Your task to perform on an android device: change timer sound Image 0: 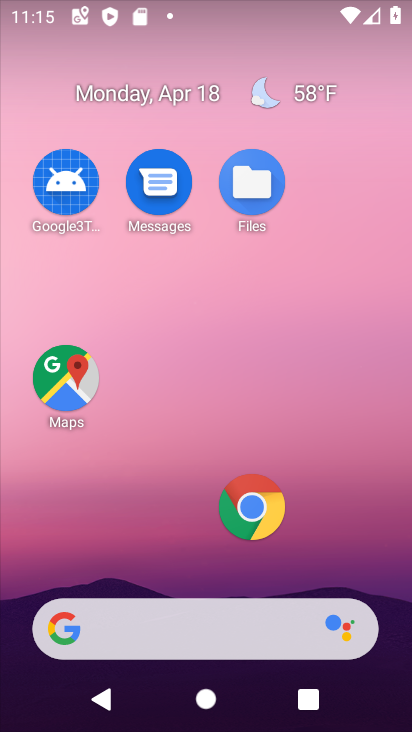
Step 0: drag from (221, 579) to (209, 2)
Your task to perform on an android device: change timer sound Image 1: 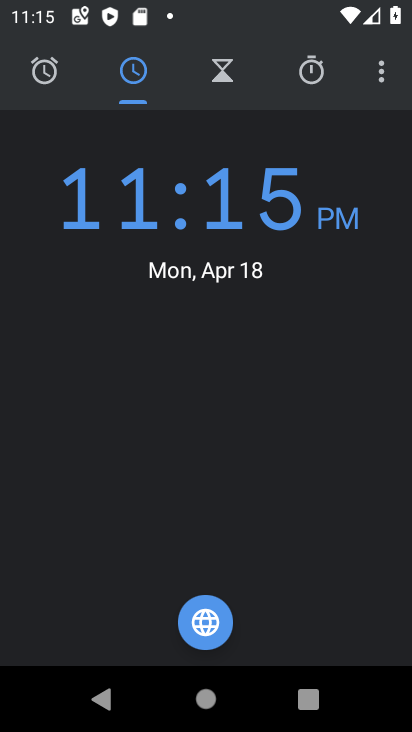
Step 1: press home button
Your task to perform on an android device: change timer sound Image 2: 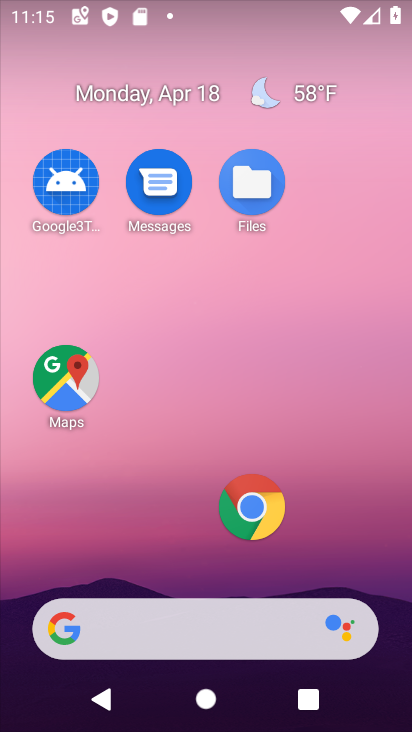
Step 2: drag from (211, 579) to (254, 0)
Your task to perform on an android device: change timer sound Image 3: 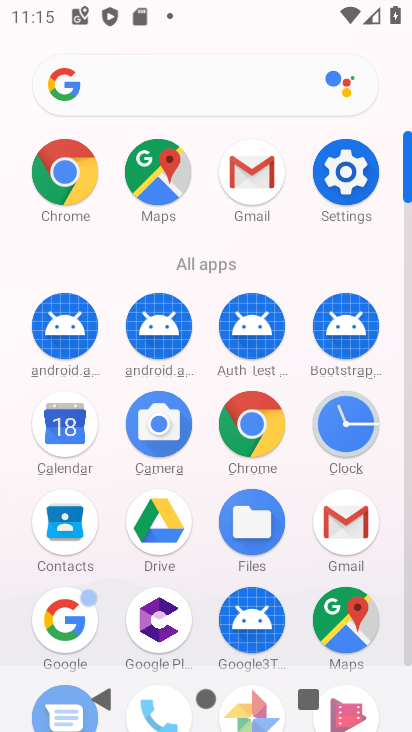
Step 3: click (361, 435)
Your task to perform on an android device: change timer sound Image 4: 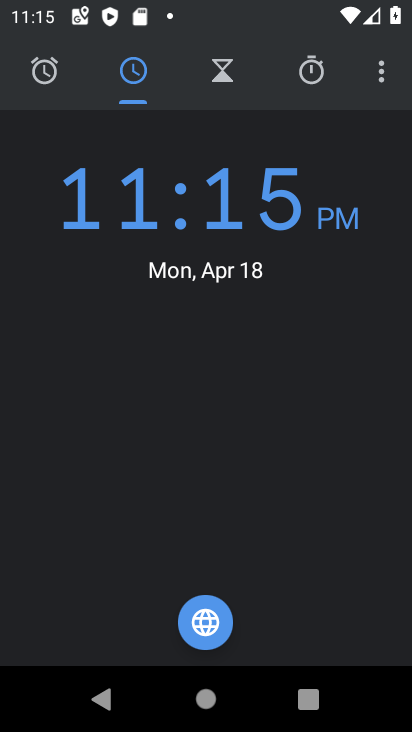
Step 4: click (377, 78)
Your task to perform on an android device: change timer sound Image 5: 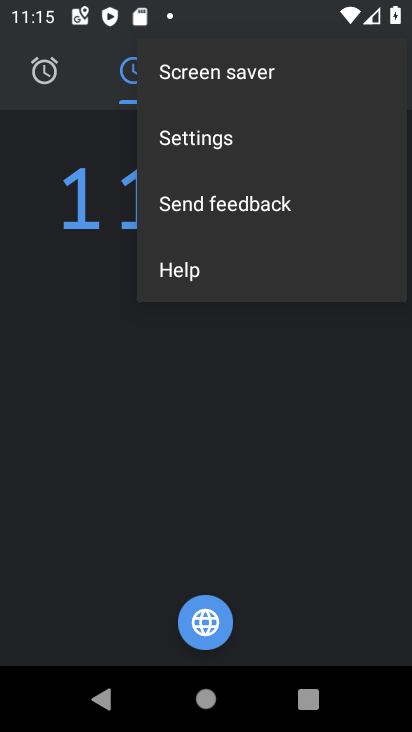
Step 5: click (200, 137)
Your task to perform on an android device: change timer sound Image 6: 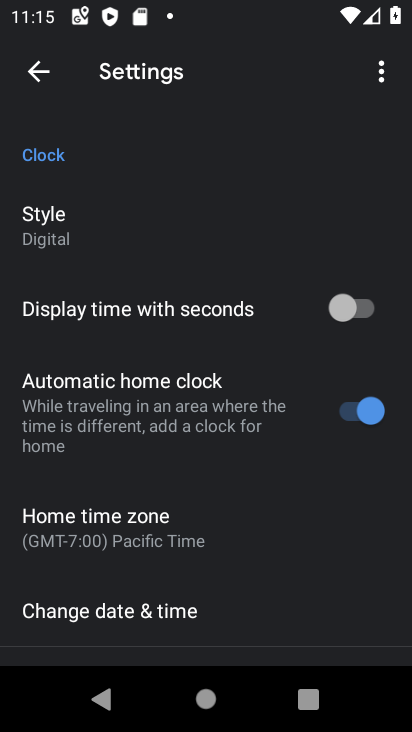
Step 6: drag from (192, 485) to (187, 119)
Your task to perform on an android device: change timer sound Image 7: 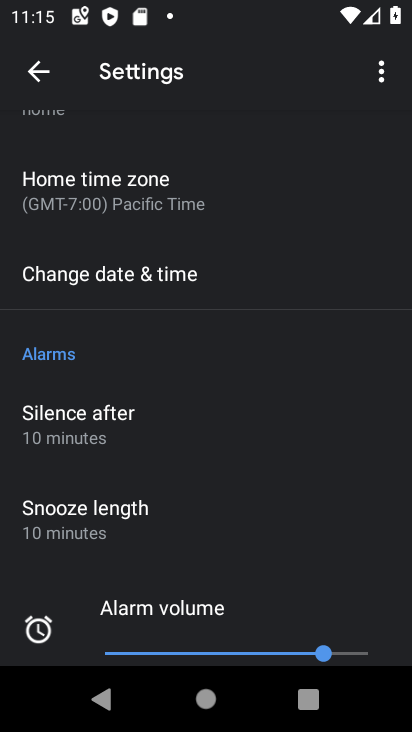
Step 7: drag from (120, 510) to (122, 79)
Your task to perform on an android device: change timer sound Image 8: 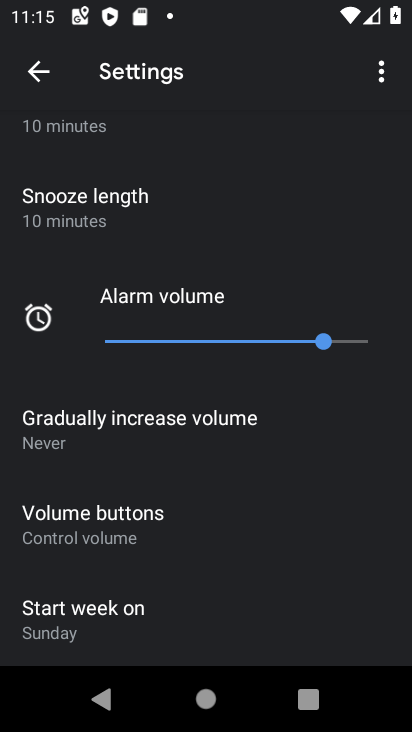
Step 8: drag from (130, 598) to (141, 105)
Your task to perform on an android device: change timer sound Image 9: 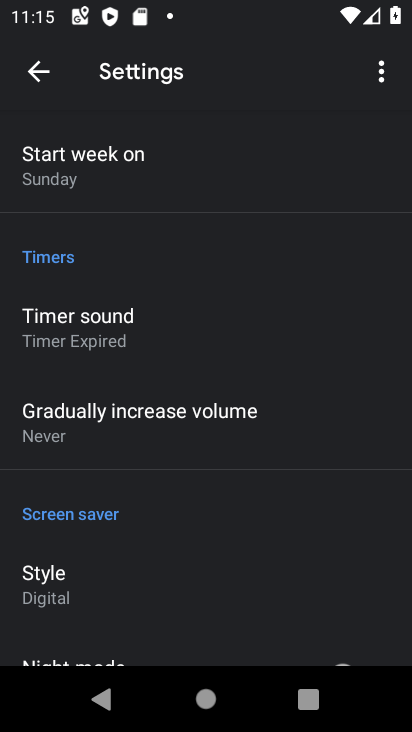
Step 9: click (124, 323)
Your task to perform on an android device: change timer sound Image 10: 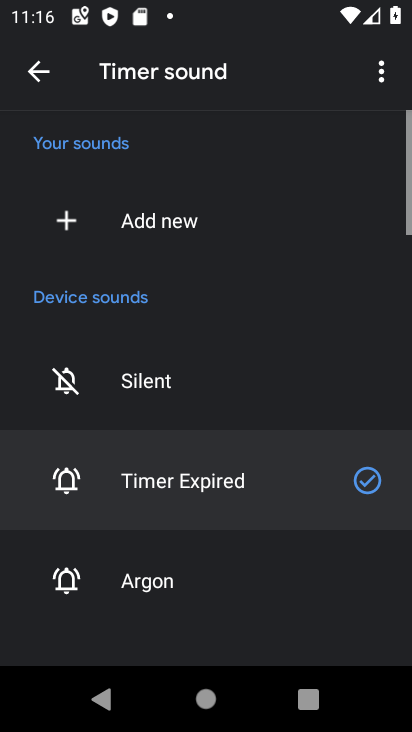
Step 10: click (158, 564)
Your task to perform on an android device: change timer sound Image 11: 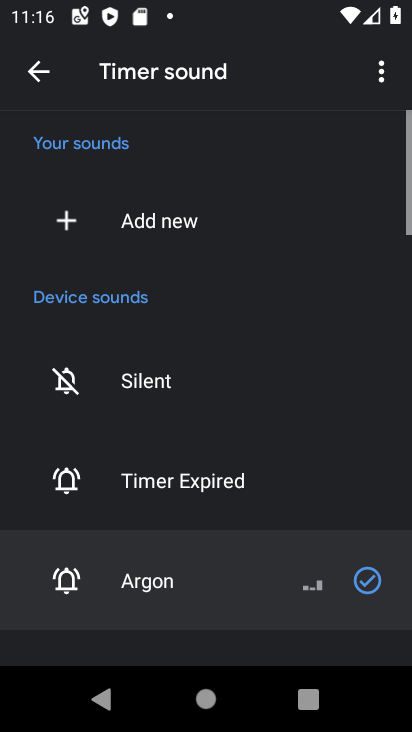
Step 11: task complete